Your task to perform on an android device: Show the shopping cart on target.com. Search for macbook air on target.com, select the first entry, and add it to the cart. Image 0: 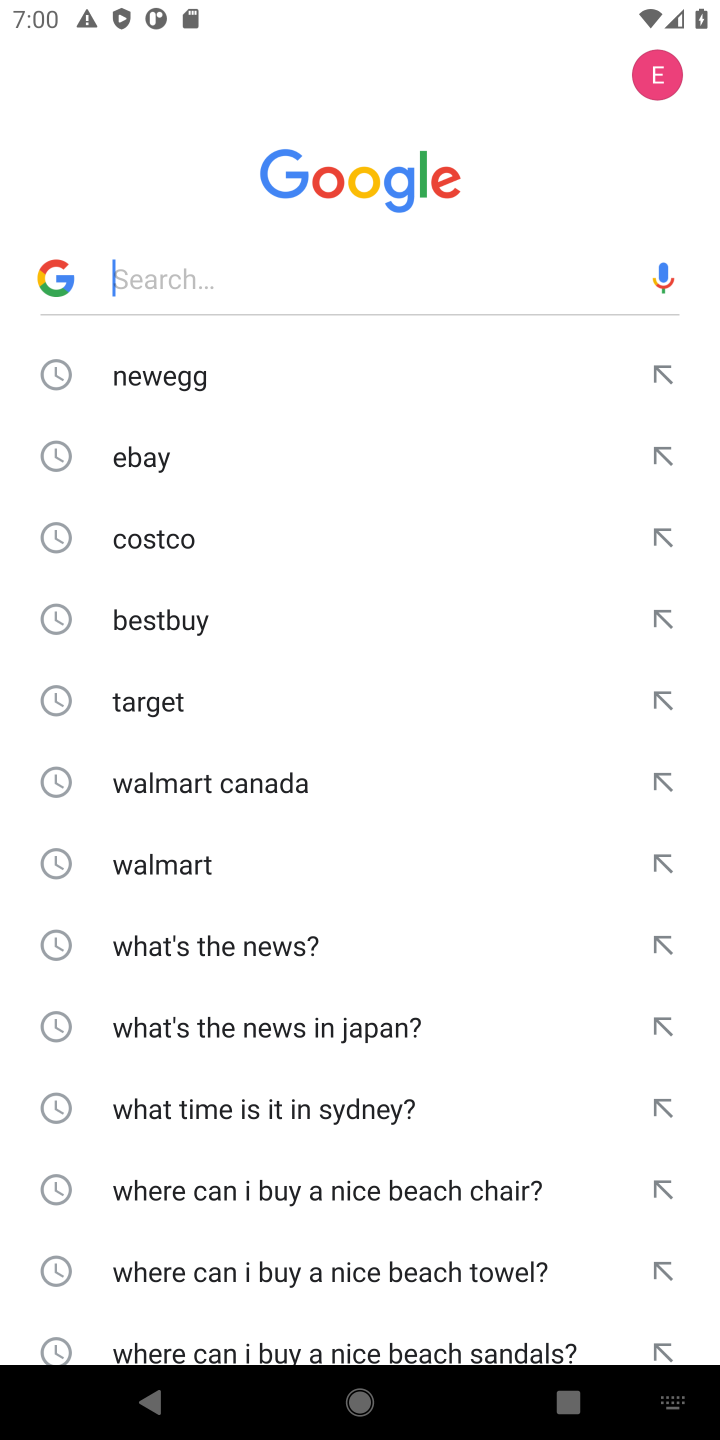
Step 0: click (148, 717)
Your task to perform on an android device: Show the shopping cart on target.com. Search for macbook air on target.com, select the first entry, and add it to the cart. Image 1: 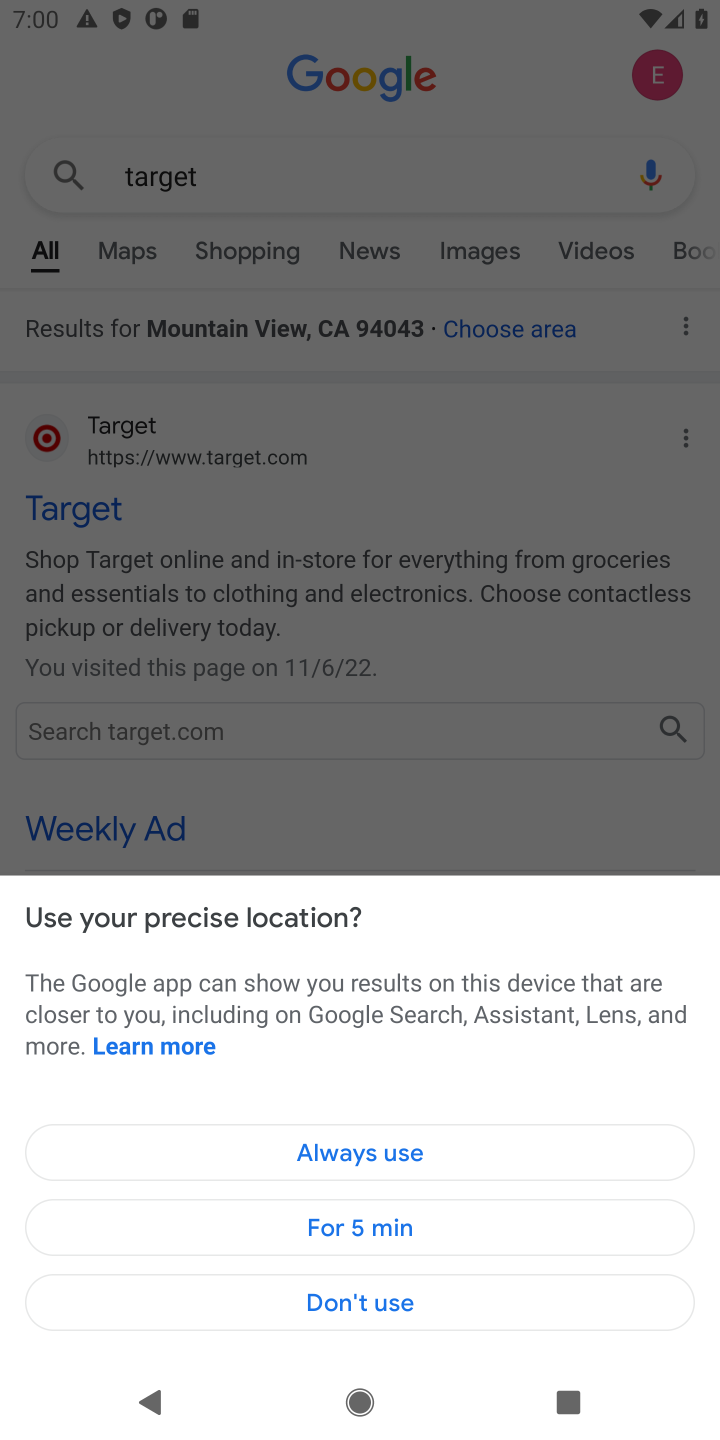
Step 1: click (367, 1319)
Your task to perform on an android device: Show the shopping cart on target.com. Search for macbook air on target.com, select the first entry, and add it to the cart. Image 2: 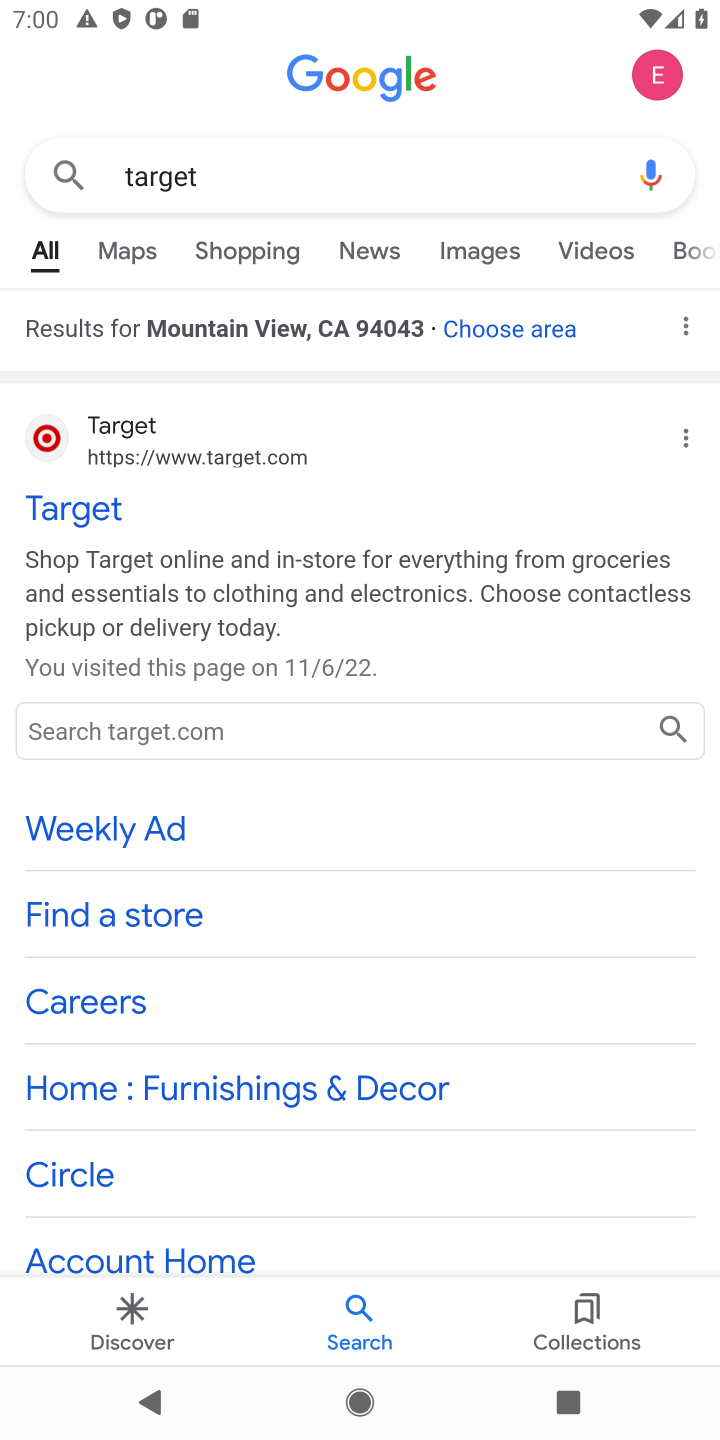
Step 2: click (85, 489)
Your task to perform on an android device: Show the shopping cart on target.com. Search for macbook air on target.com, select the first entry, and add it to the cart. Image 3: 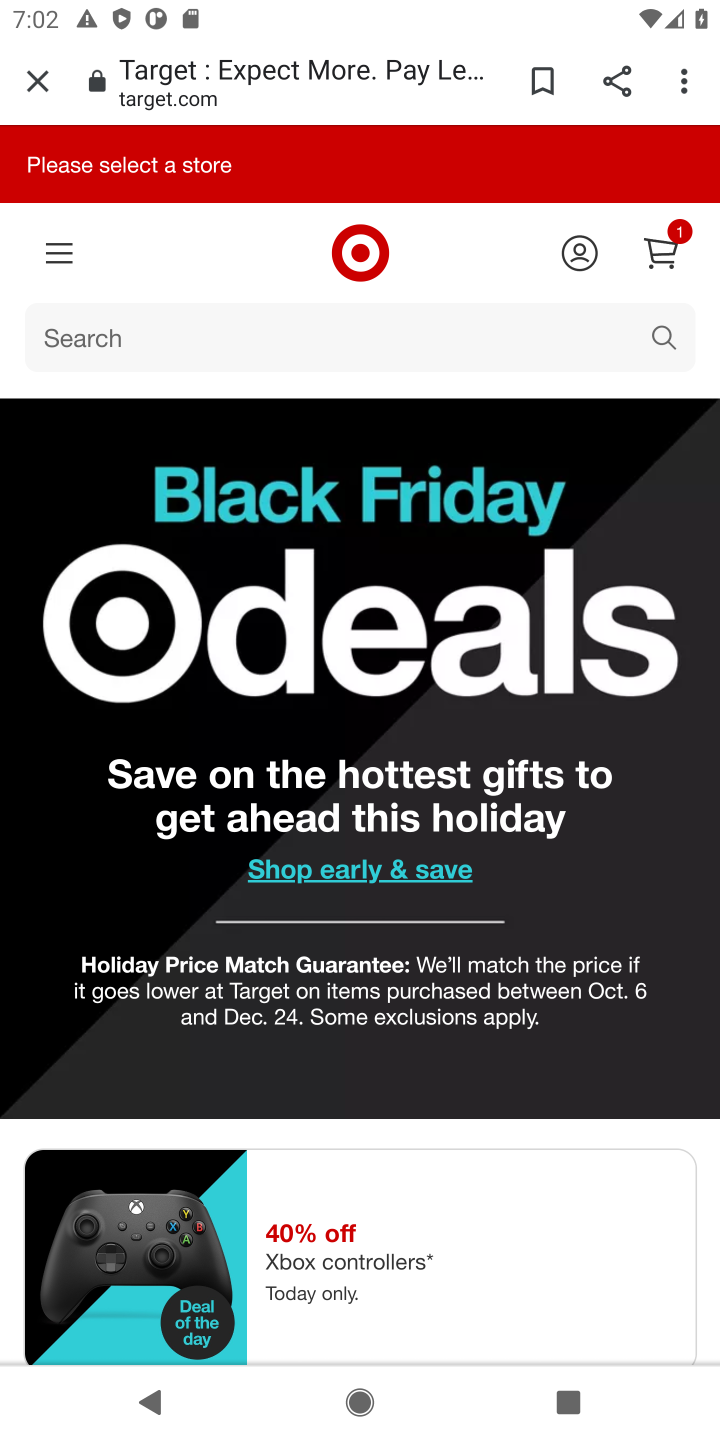
Step 3: click (106, 337)
Your task to perform on an android device: Show the shopping cart on target.com. Search for macbook air on target.com, select the first entry, and add it to the cart. Image 4: 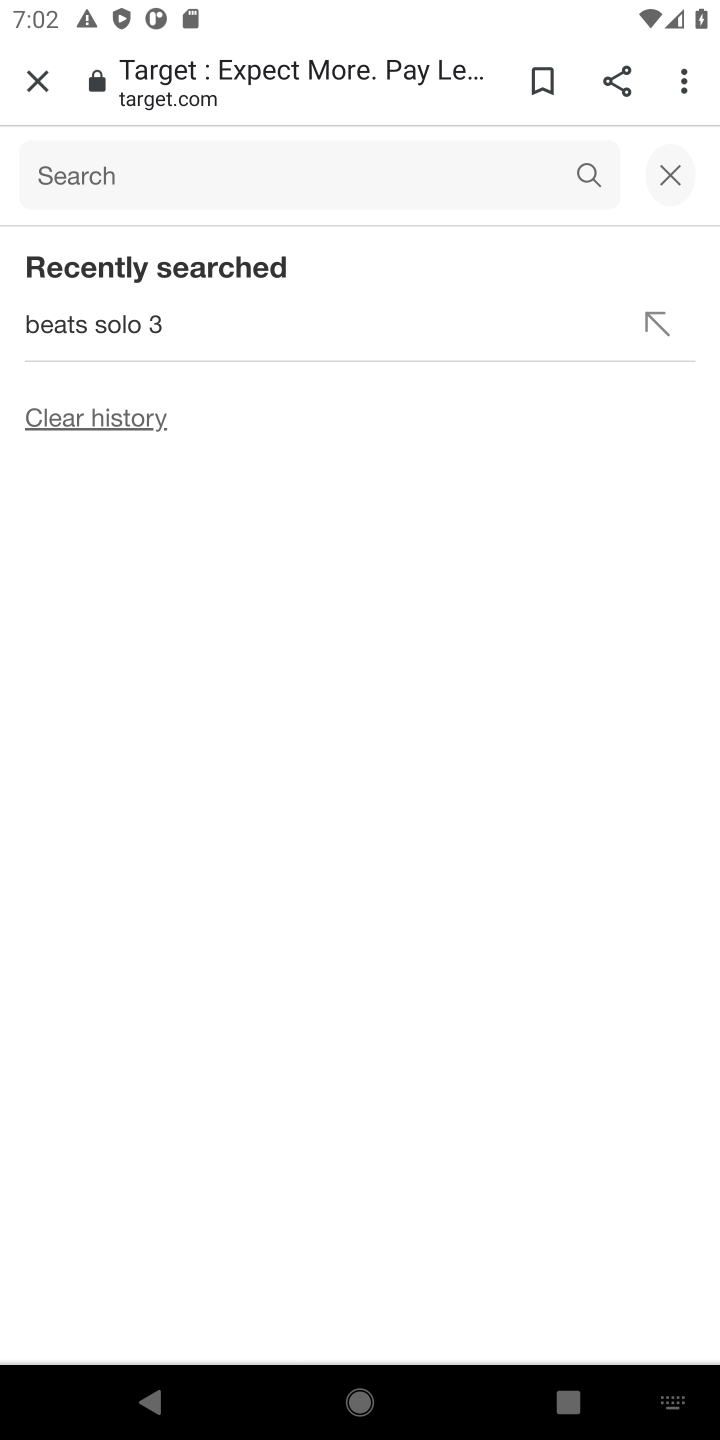
Step 4: click (125, 170)
Your task to perform on an android device: Show the shopping cart on target.com. Search for macbook air on target.com, select the first entry, and add it to the cart. Image 5: 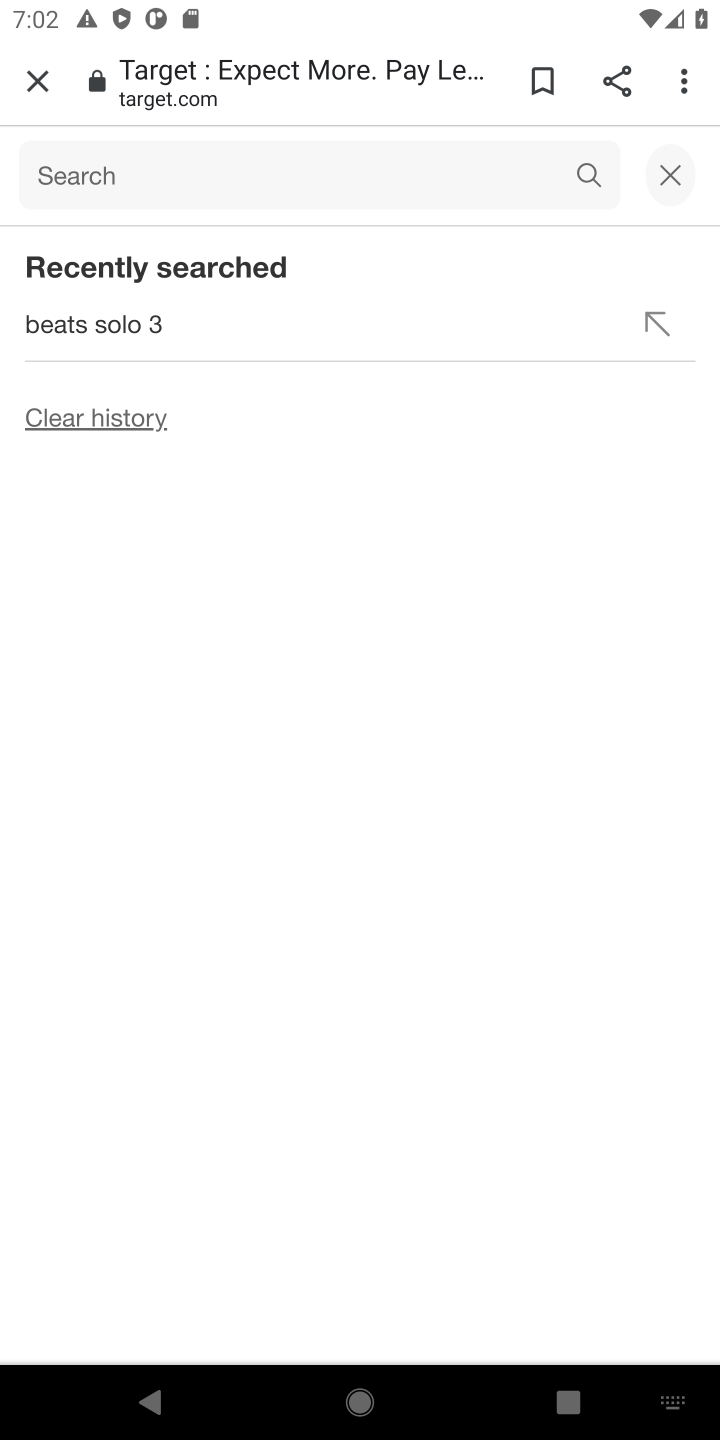
Step 5: type "macbook air "
Your task to perform on an android device: Show the shopping cart on target.com. Search for macbook air on target.com, select the first entry, and add it to the cart. Image 6: 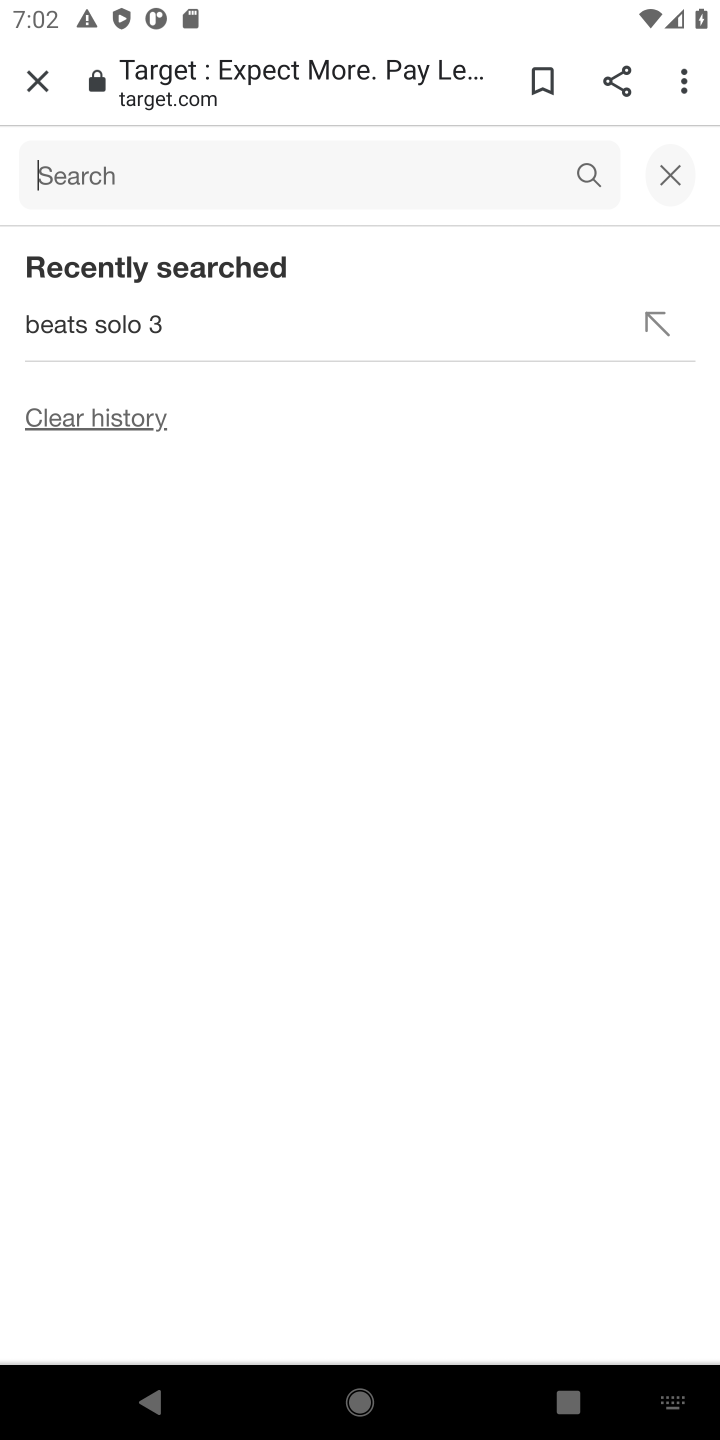
Step 6: click (406, 980)
Your task to perform on an android device: Show the shopping cart on target.com. Search for macbook air on target.com, select the first entry, and add it to the cart. Image 7: 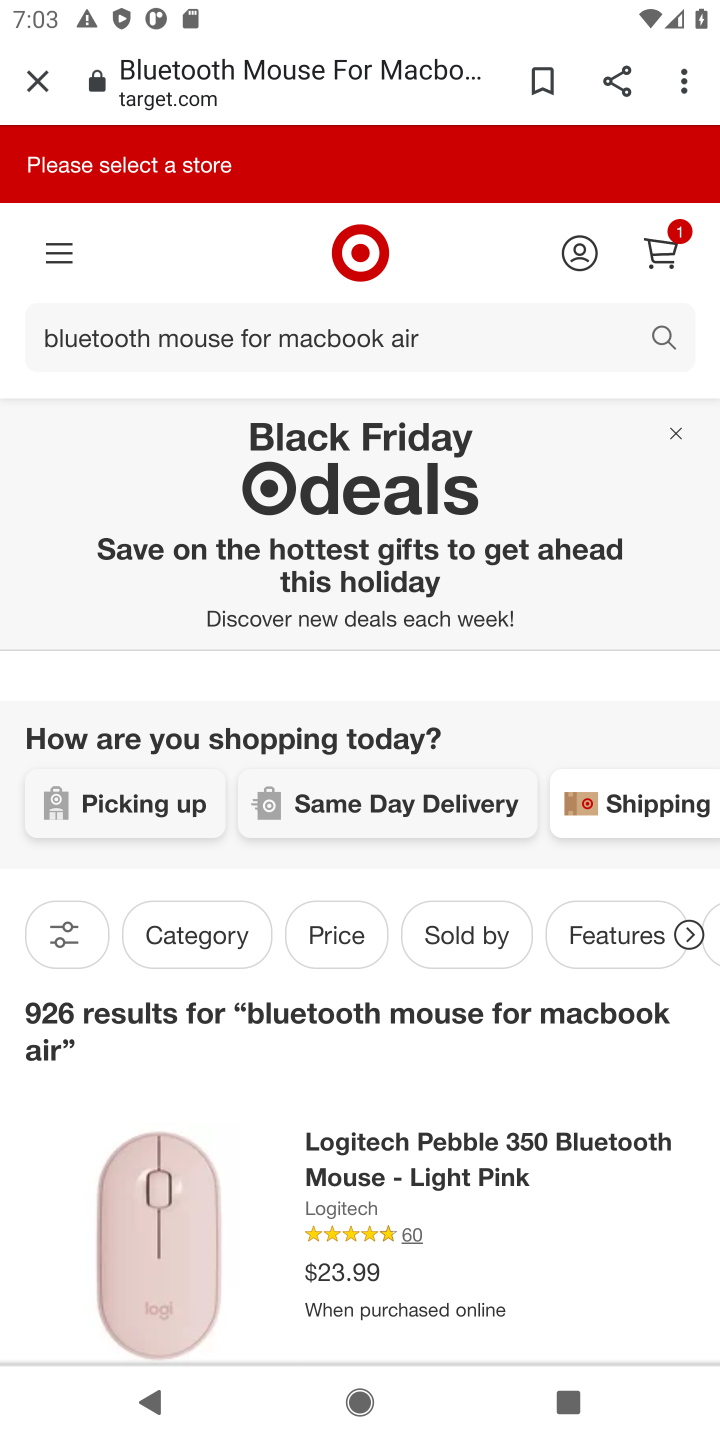
Step 7: task complete